Your task to perform on an android device: Set the phone to "Do not disturb". Image 0: 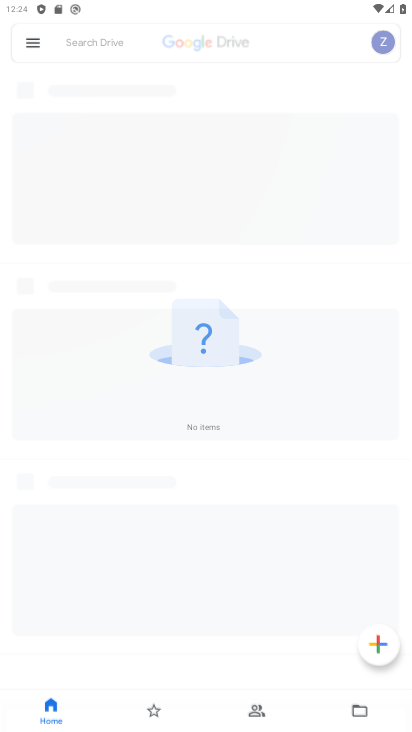
Step 0: click (134, 639)
Your task to perform on an android device: Set the phone to "Do not disturb". Image 1: 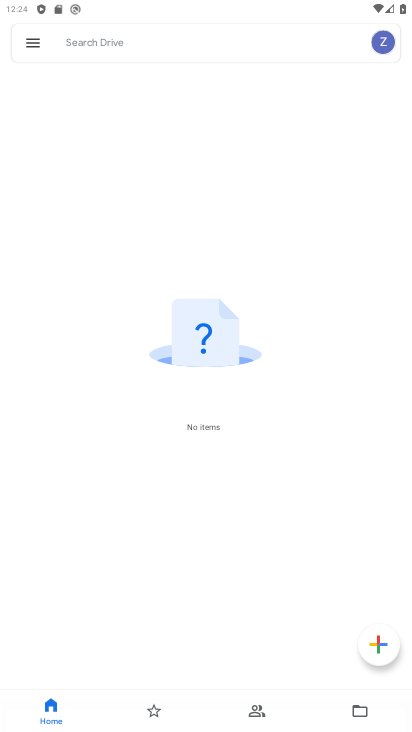
Step 1: drag from (236, 17) to (221, 589)
Your task to perform on an android device: Set the phone to "Do not disturb". Image 2: 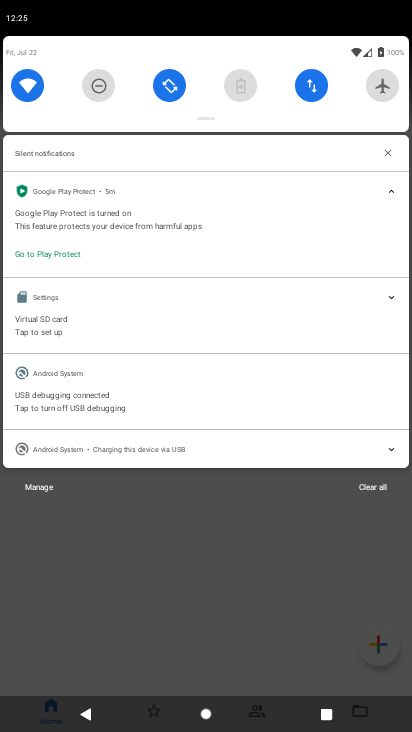
Step 2: click (94, 82)
Your task to perform on an android device: Set the phone to "Do not disturb". Image 3: 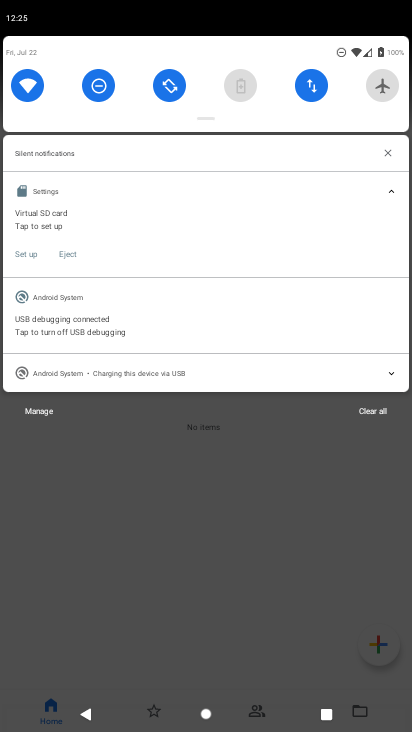
Step 3: task complete